Your task to perform on an android device: What's the weather going to be this weekend? Image 0: 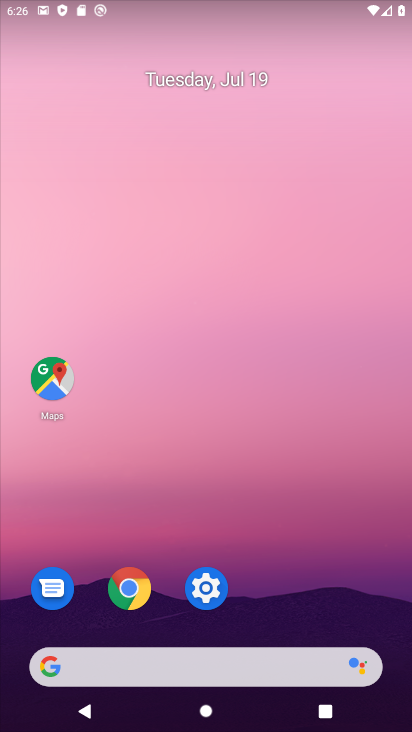
Step 0: click (139, 654)
Your task to perform on an android device: What's the weather going to be this weekend? Image 1: 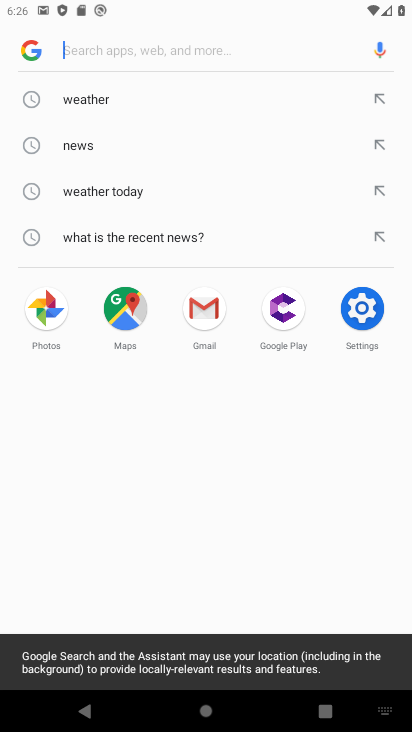
Step 1: click (75, 97)
Your task to perform on an android device: What's the weather going to be this weekend? Image 2: 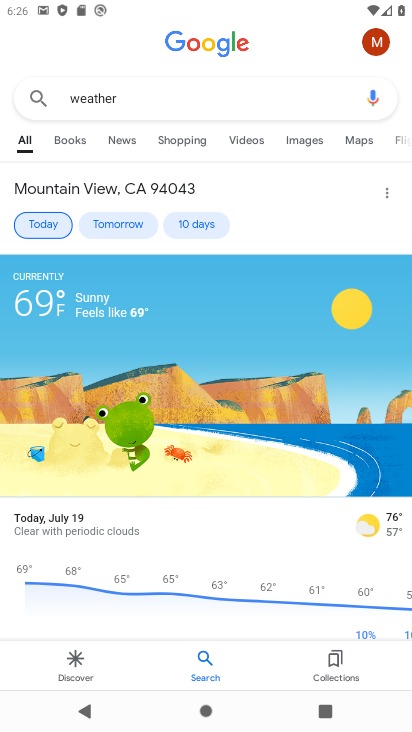
Step 2: click (185, 222)
Your task to perform on an android device: What's the weather going to be this weekend? Image 3: 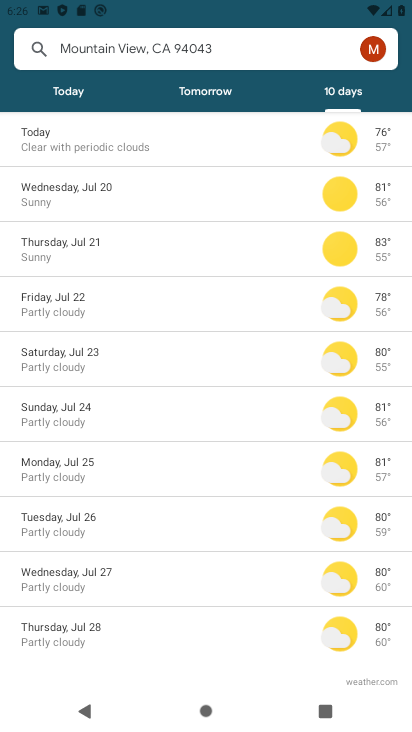
Step 3: task complete